Your task to perform on an android device: Open settings on Google Maps Image 0: 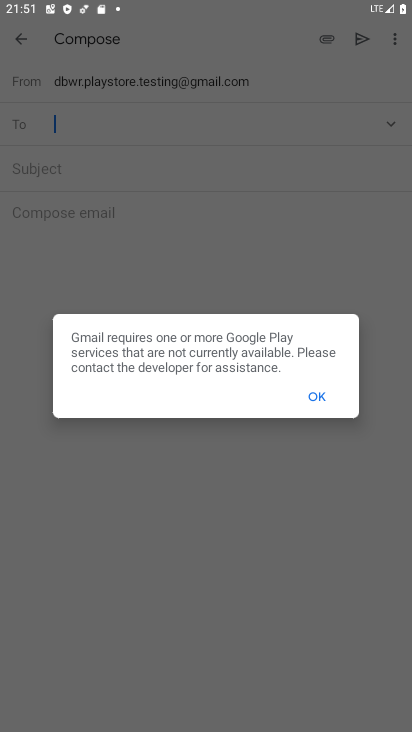
Step 0: press home button
Your task to perform on an android device: Open settings on Google Maps Image 1: 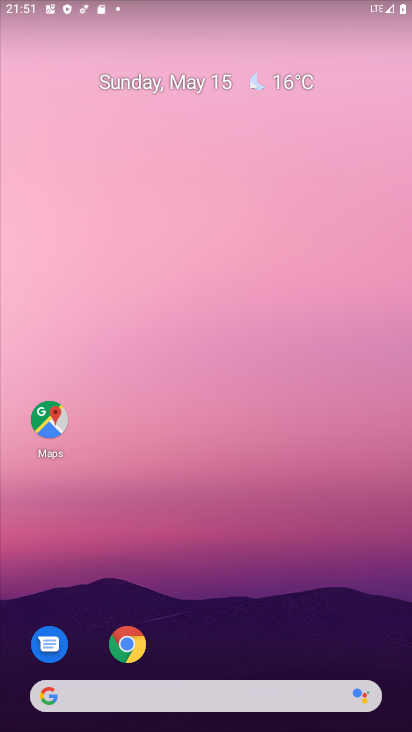
Step 1: click (48, 419)
Your task to perform on an android device: Open settings on Google Maps Image 2: 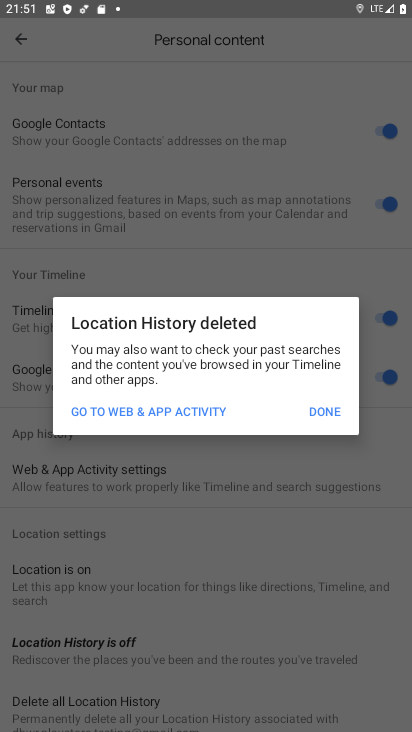
Step 2: click (316, 404)
Your task to perform on an android device: Open settings on Google Maps Image 3: 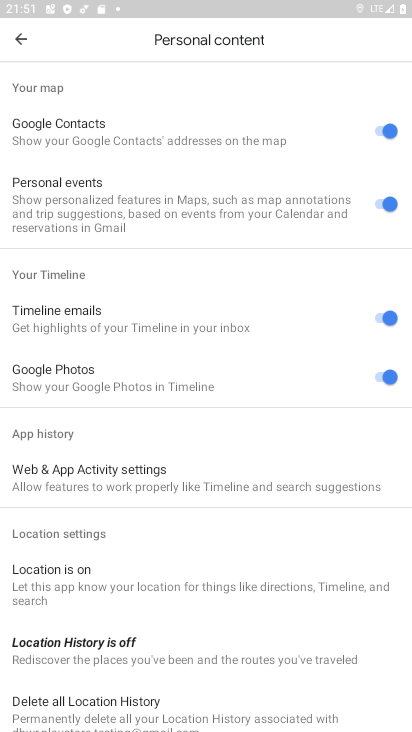
Step 3: click (17, 29)
Your task to perform on an android device: Open settings on Google Maps Image 4: 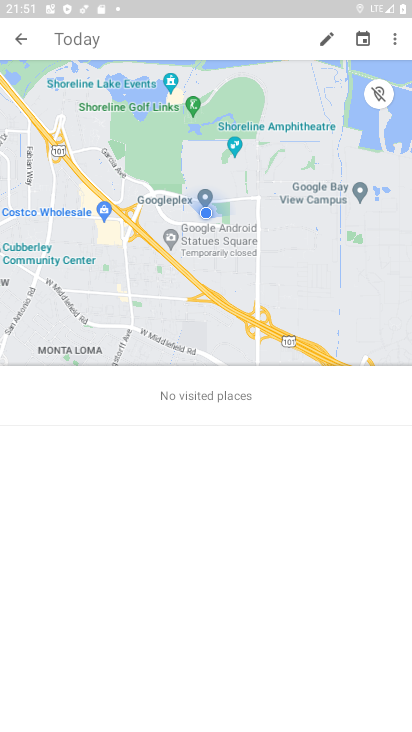
Step 4: task complete